Your task to perform on an android device: Search for razer deathadder on ebay.com, select the first entry, add it to the cart, then select checkout. Image 0: 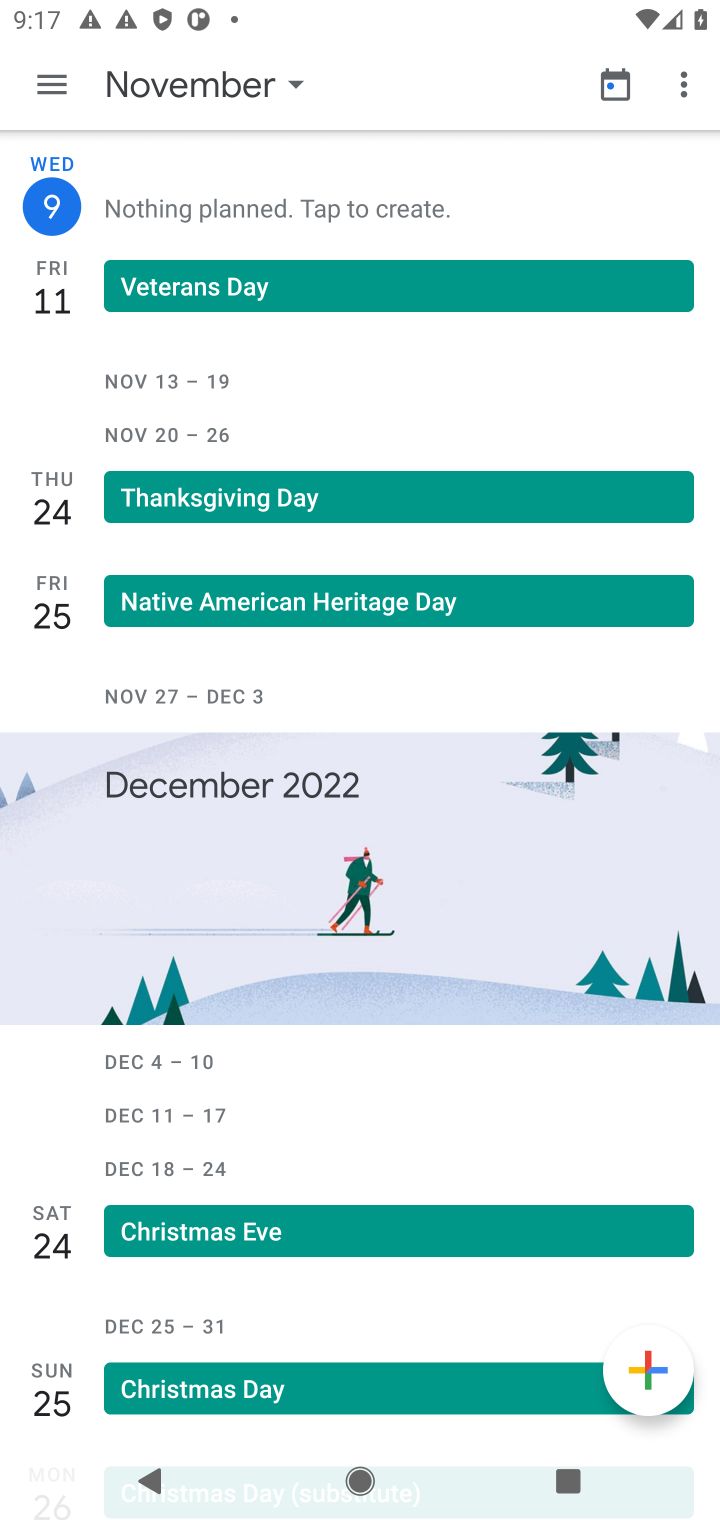
Step 0: press home button
Your task to perform on an android device: Search for razer deathadder on ebay.com, select the first entry, add it to the cart, then select checkout. Image 1: 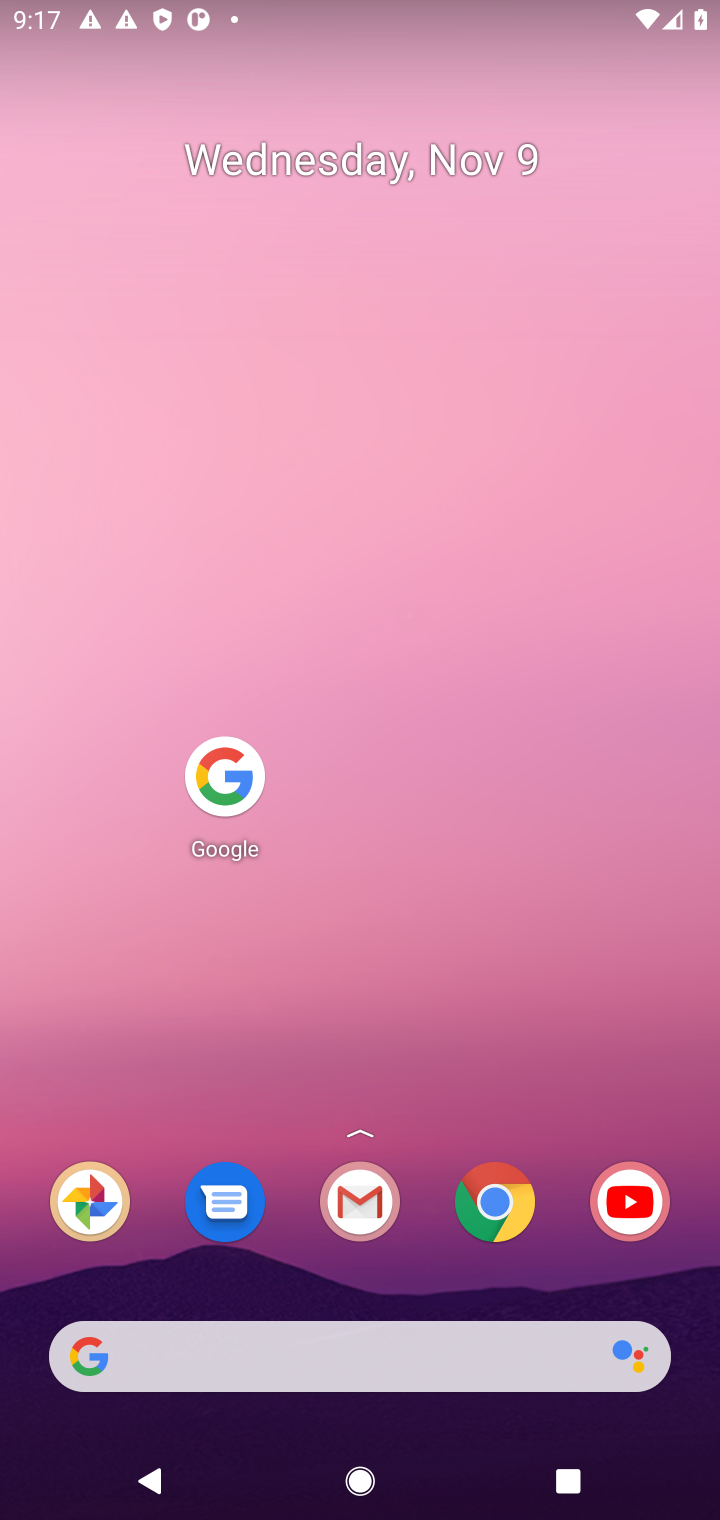
Step 1: click (228, 775)
Your task to perform on an android device: Search for razer deathadder on ebay.com, select the first entry, add it to the cart, then select checkout. Image 2: 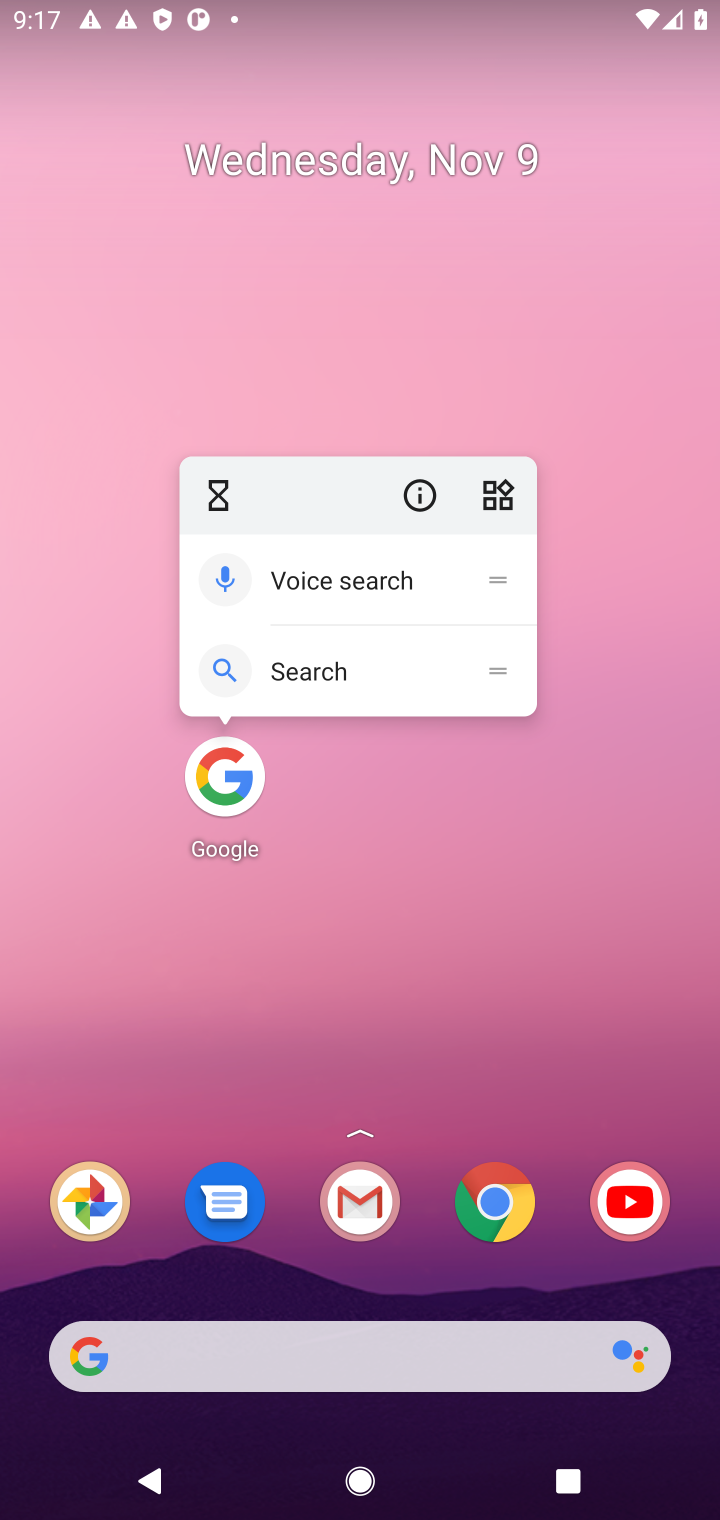
Step 2: click (228, 778)
Your task to perform on an android device: Search for razer deathadder on ebay.com, select the first entry, add it to the cart, then select checkout. Image 3: 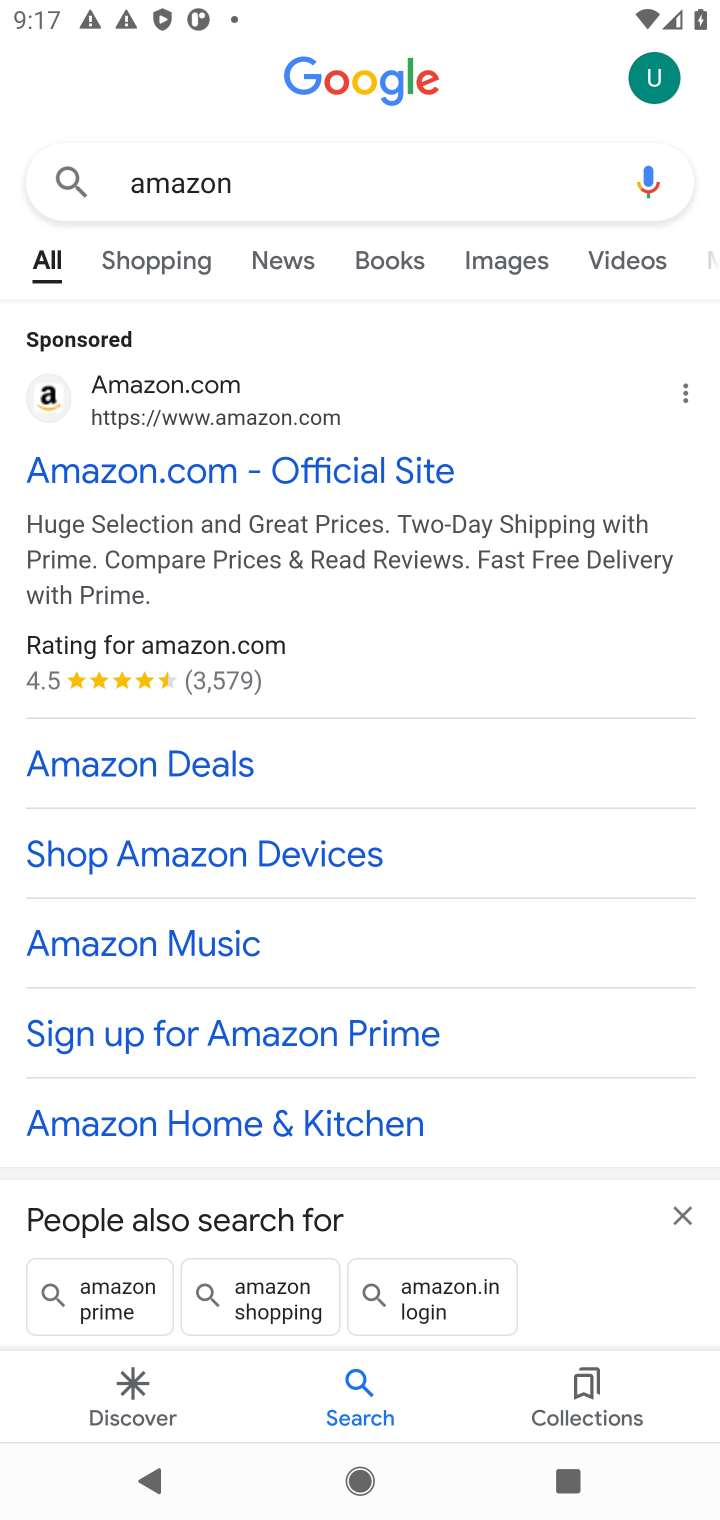
Step 3: click (250, 178)
Your task to perform on an android device: Search for razer deathadder on ebay.com, select the first entry, add it to the cart, then select checkout. Image 4: 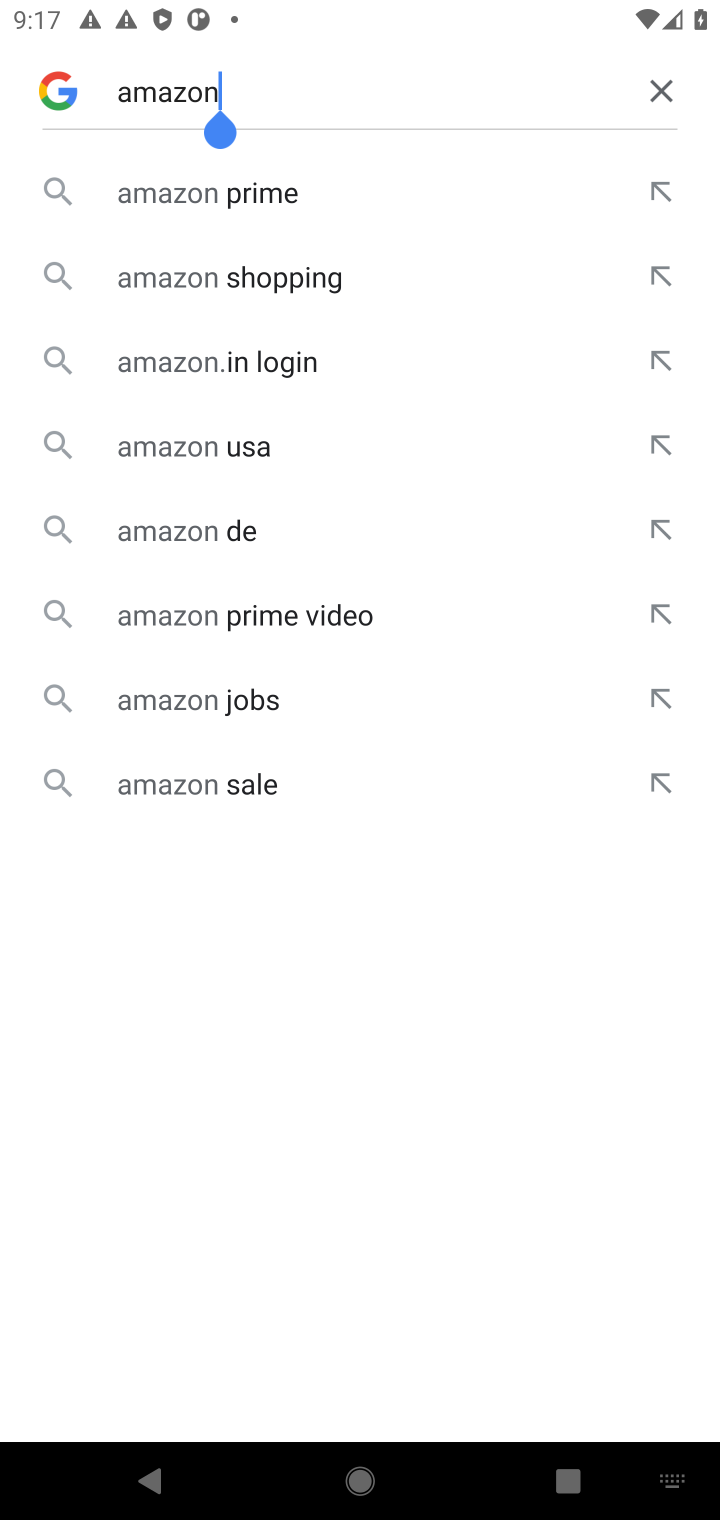
Step 4: click (656, 79)
Your task to perform on an android device: Search for razer deathadder on ebay.com, select the first entry, add it to the cart, then select checkout. Image 5: 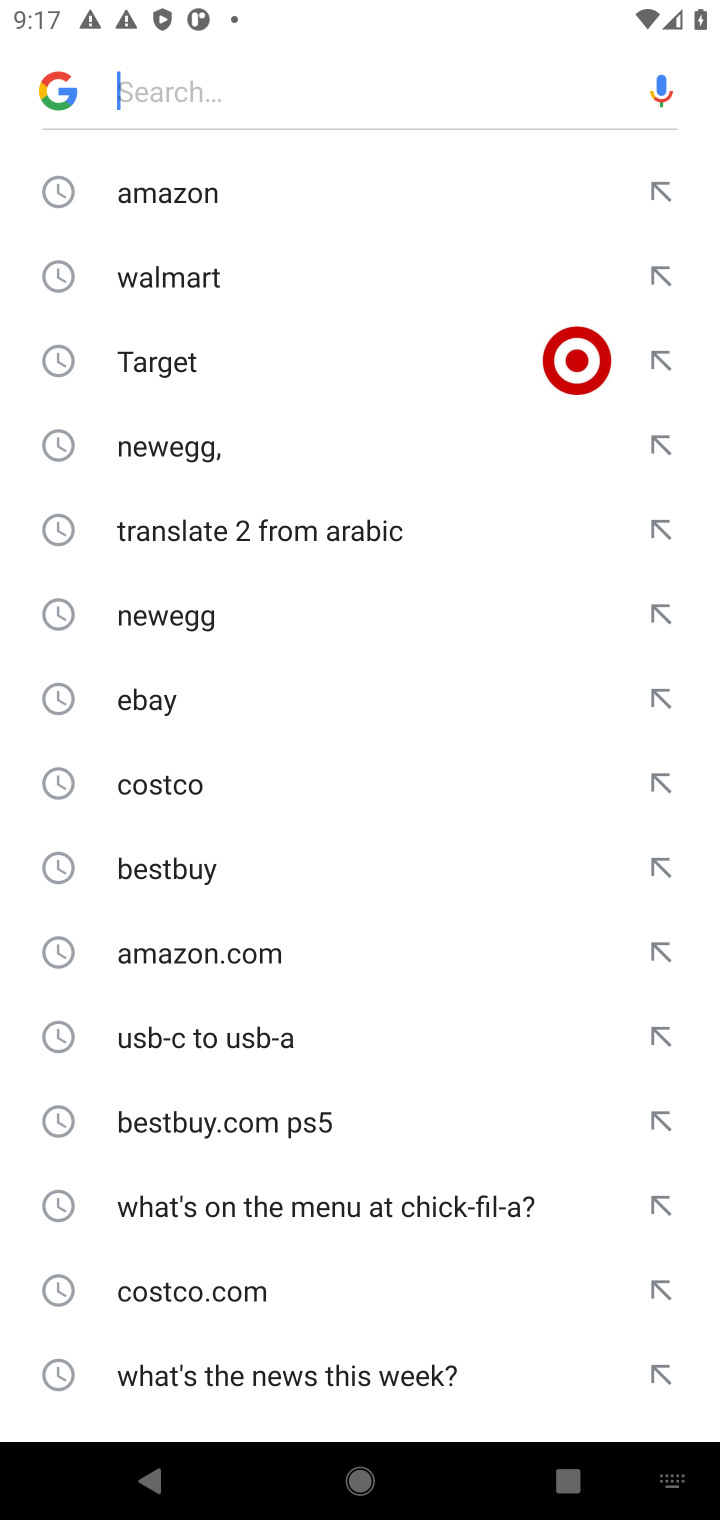
Step 5: click (128, 699)
Your task to perform on an android device: Search for razer deathadder on ebay.com, select the first entry, add it to the cart, then select checkout. Image 6: 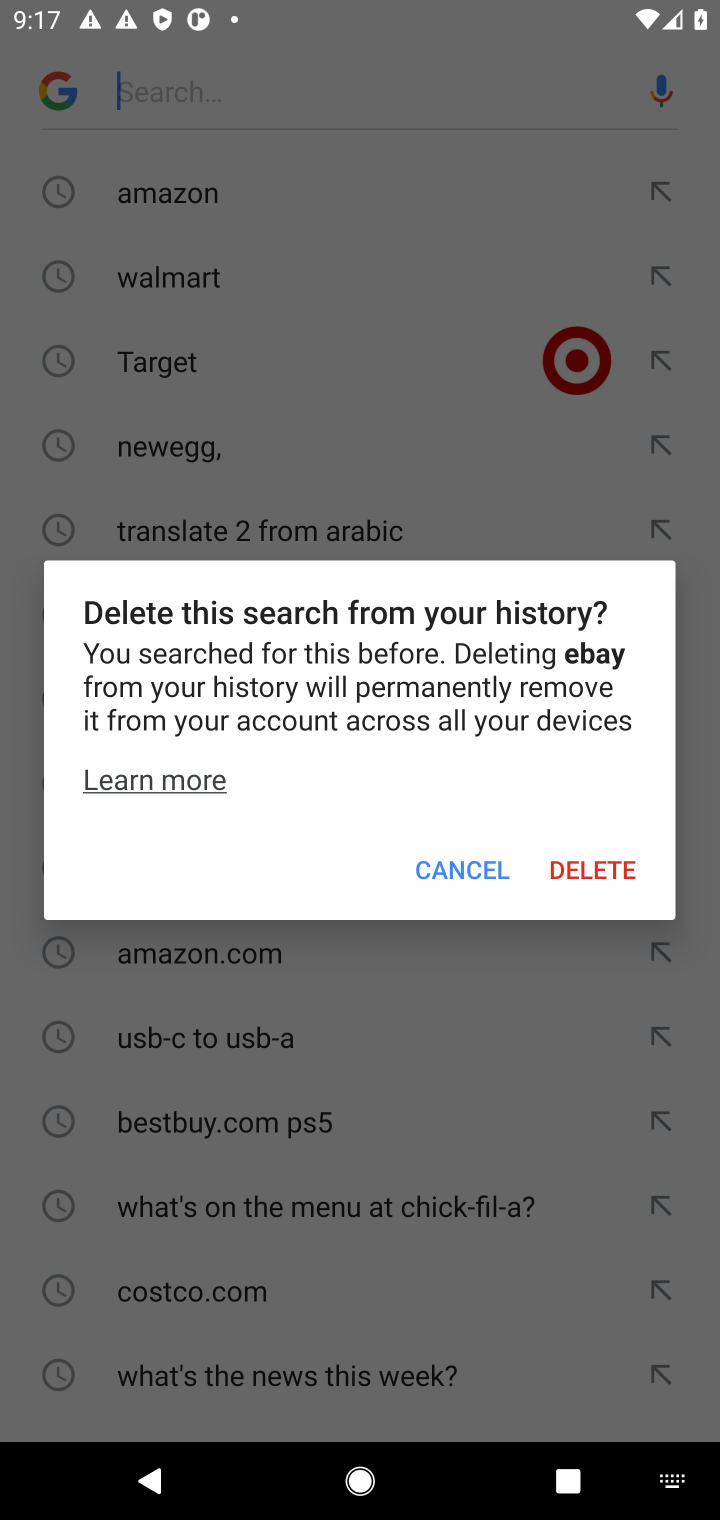
Step 6: click (438, 866)
Your task to perform on an android device: Search for razer deathadder on ebay.com, select the first entry, add it to the cart, then select checkout. Image 7: 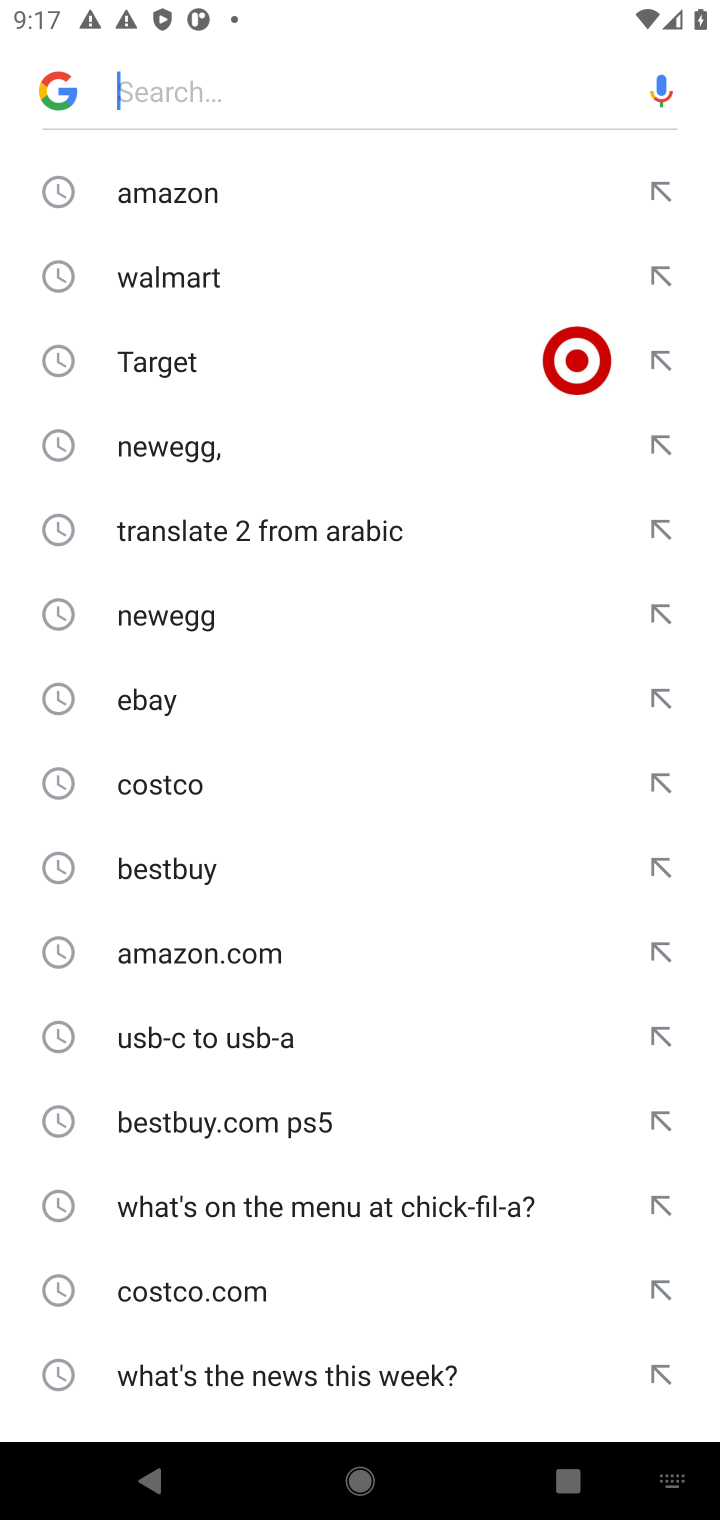
Step 7: click (148, 695)
Your task to perform on an android device: Search for razer deathadder on ebay.com, select the first entry, add it to the cart, then select checkout. Image 8: 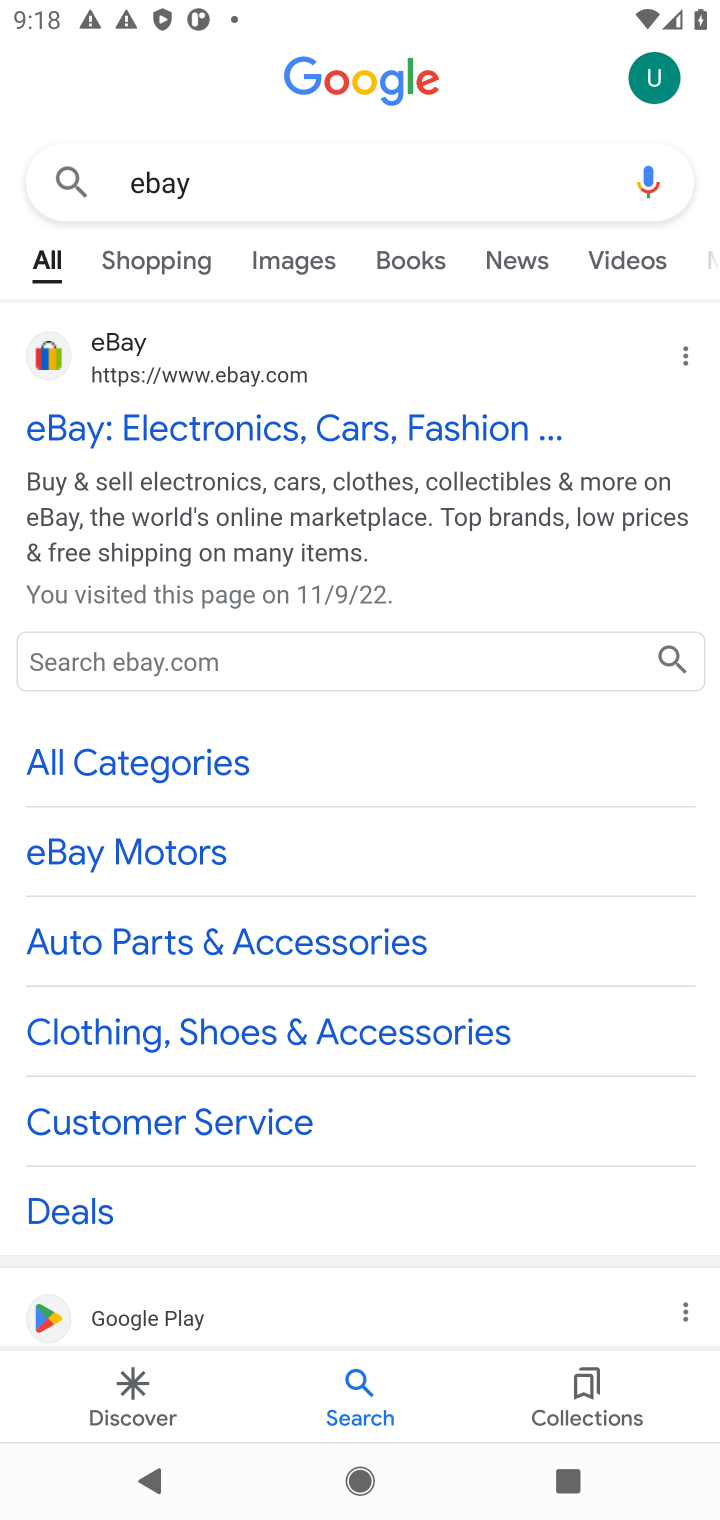
Step 8: click (299, 435)
Your task to perform on an android device: Search for razer deathadder on ebay.com, select the first entry, add it to the cart, then select checkout. Image 9: 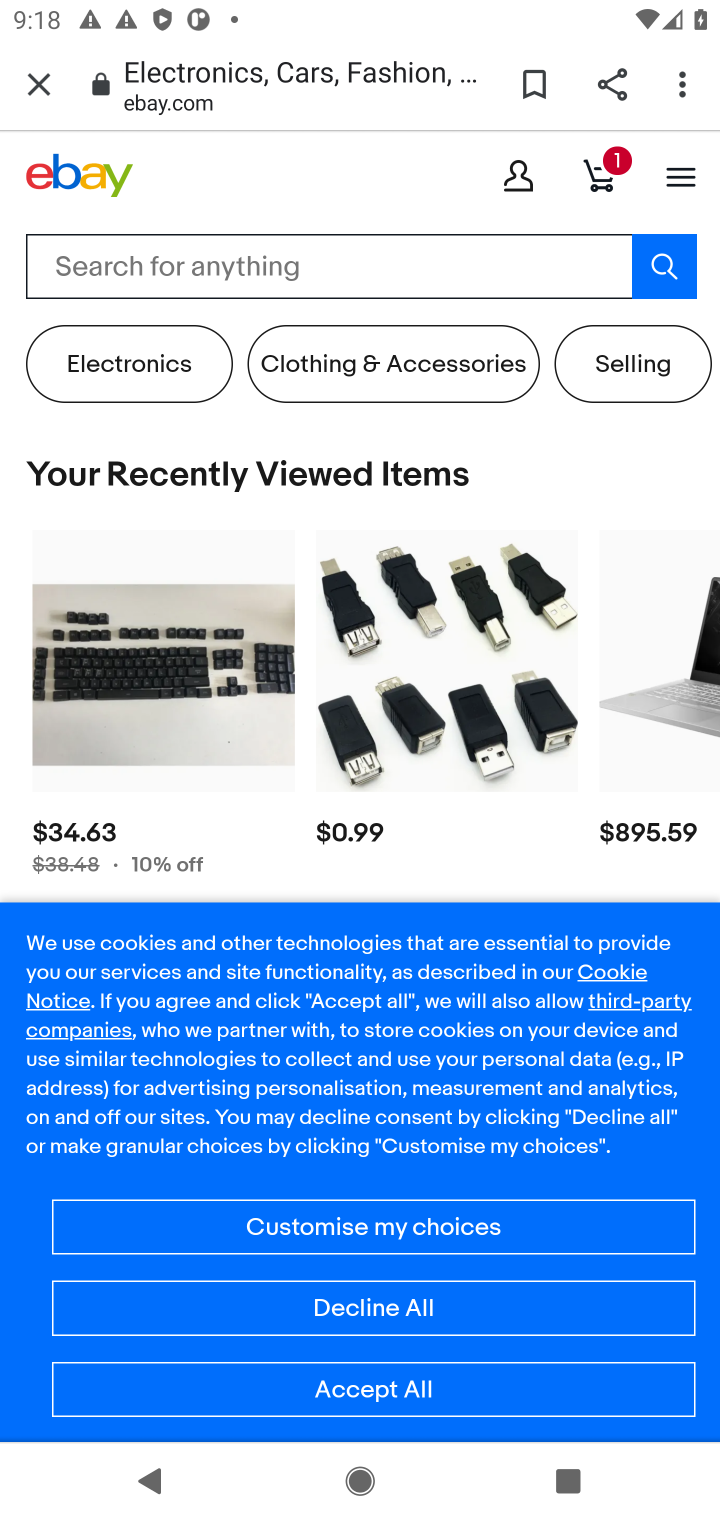
Step 9: click (200, 265)
Your task to perform on an android device: Search for razer deathadder on ebay.com, select the first entry, add it to the cart, then select checkout. Image 10: 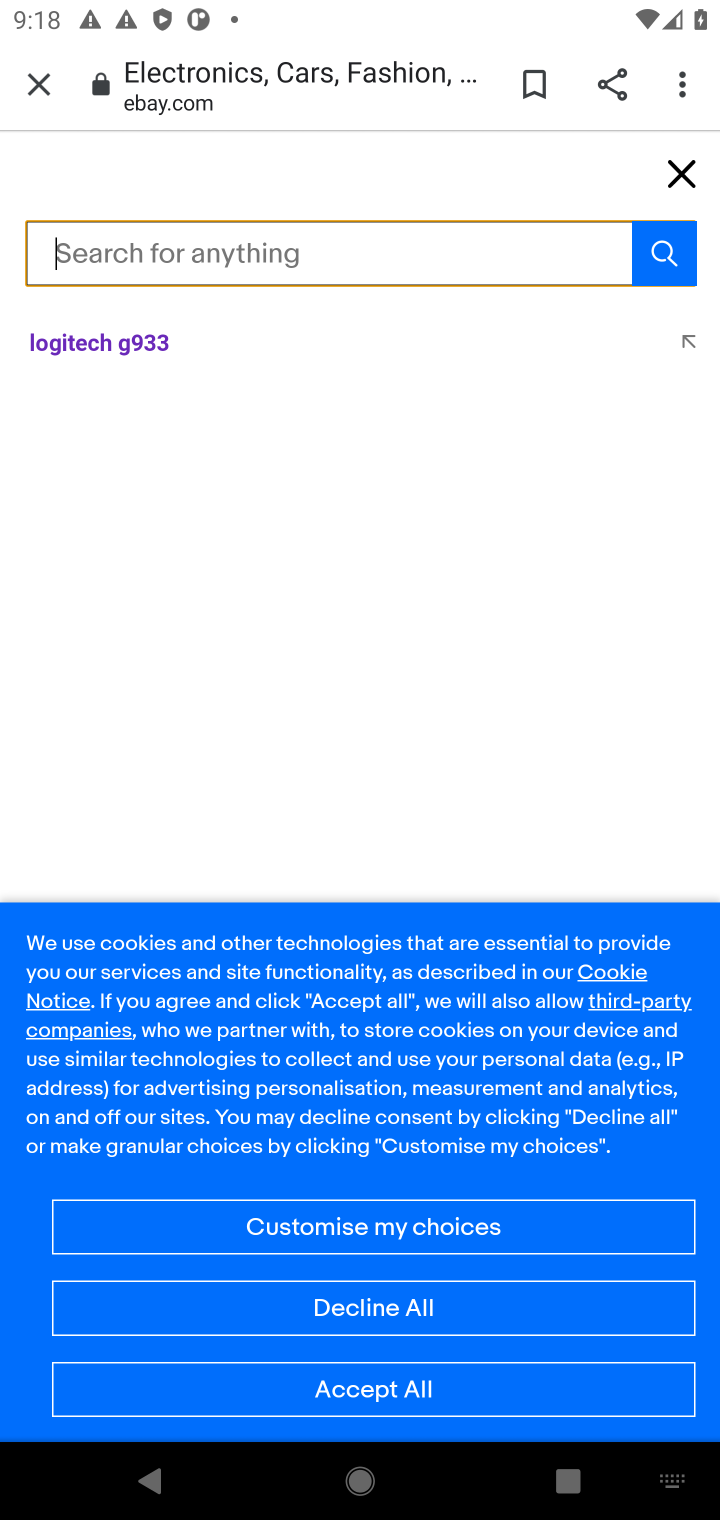
Step 10: type " razer deathadder "
Your task to perform on an android device: Search for razer deathadder on ebay.com, select the first entry, add it to the cart, then select checkout. Image 11: 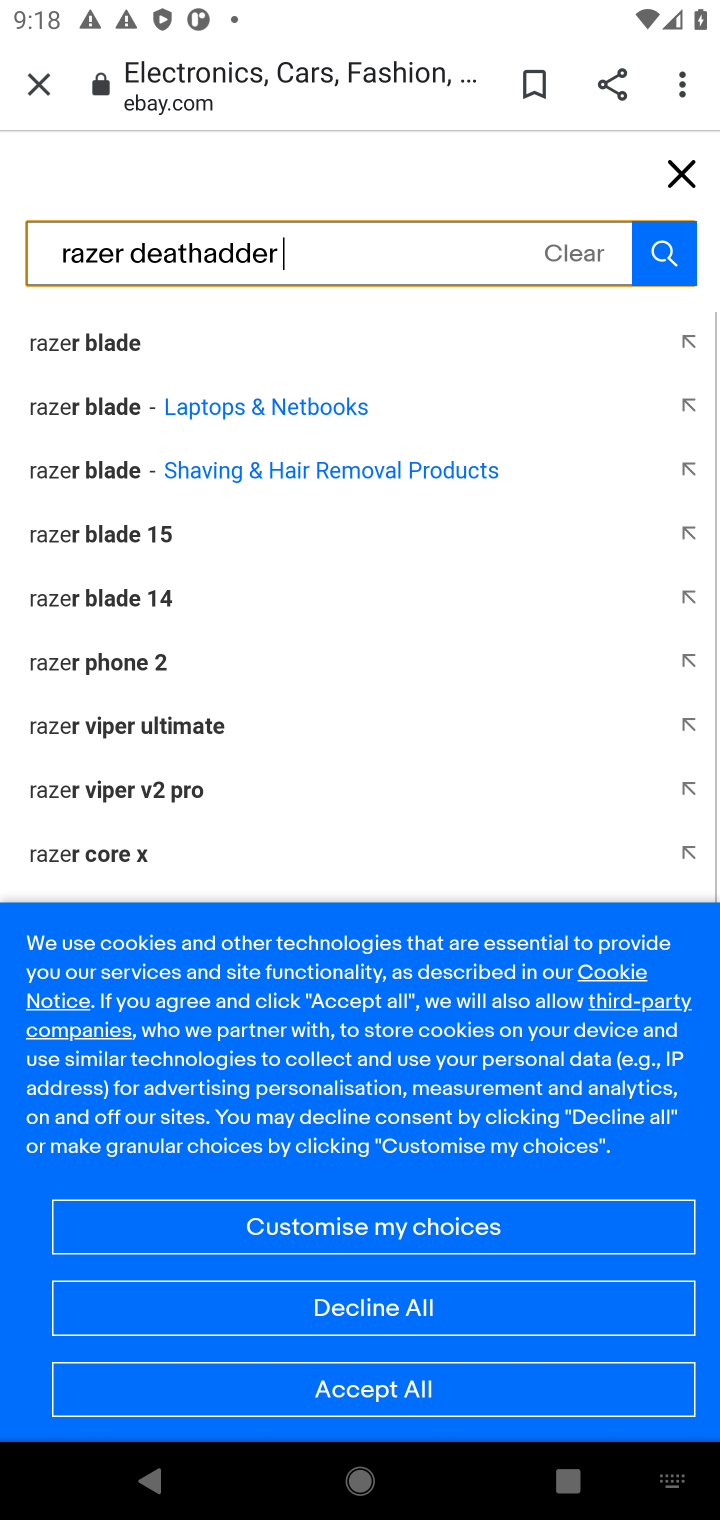
Step 11: press enter
Your task to perform on an android device: Search for razer deathadder on ebay.com, select the first entry, add it to the cart, then select checkout. Image 12: 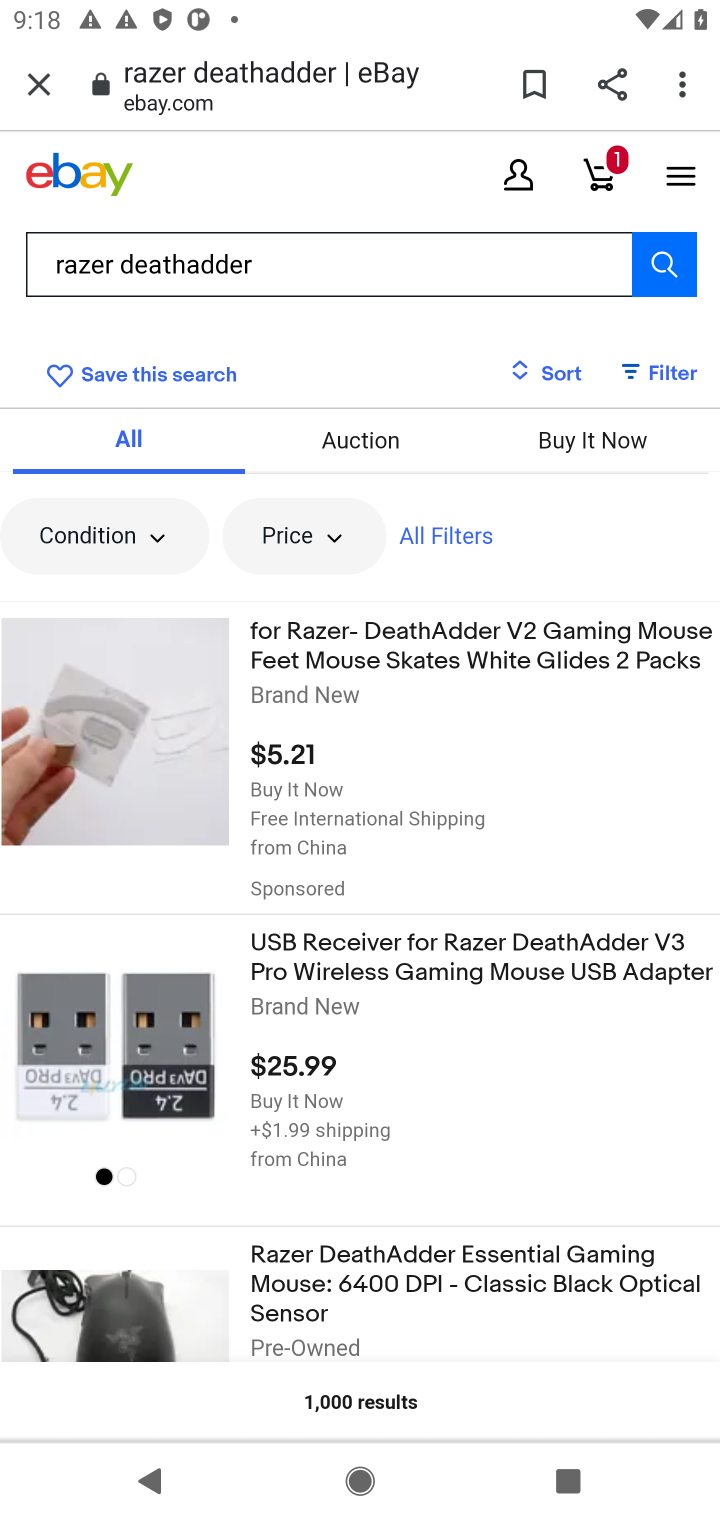
Step 12: click (420, 711)
Your task to perform on an android device: Search for razer deathadder on ebay.com, select the first entry, add it to the cart, then select checkout. Image 13: 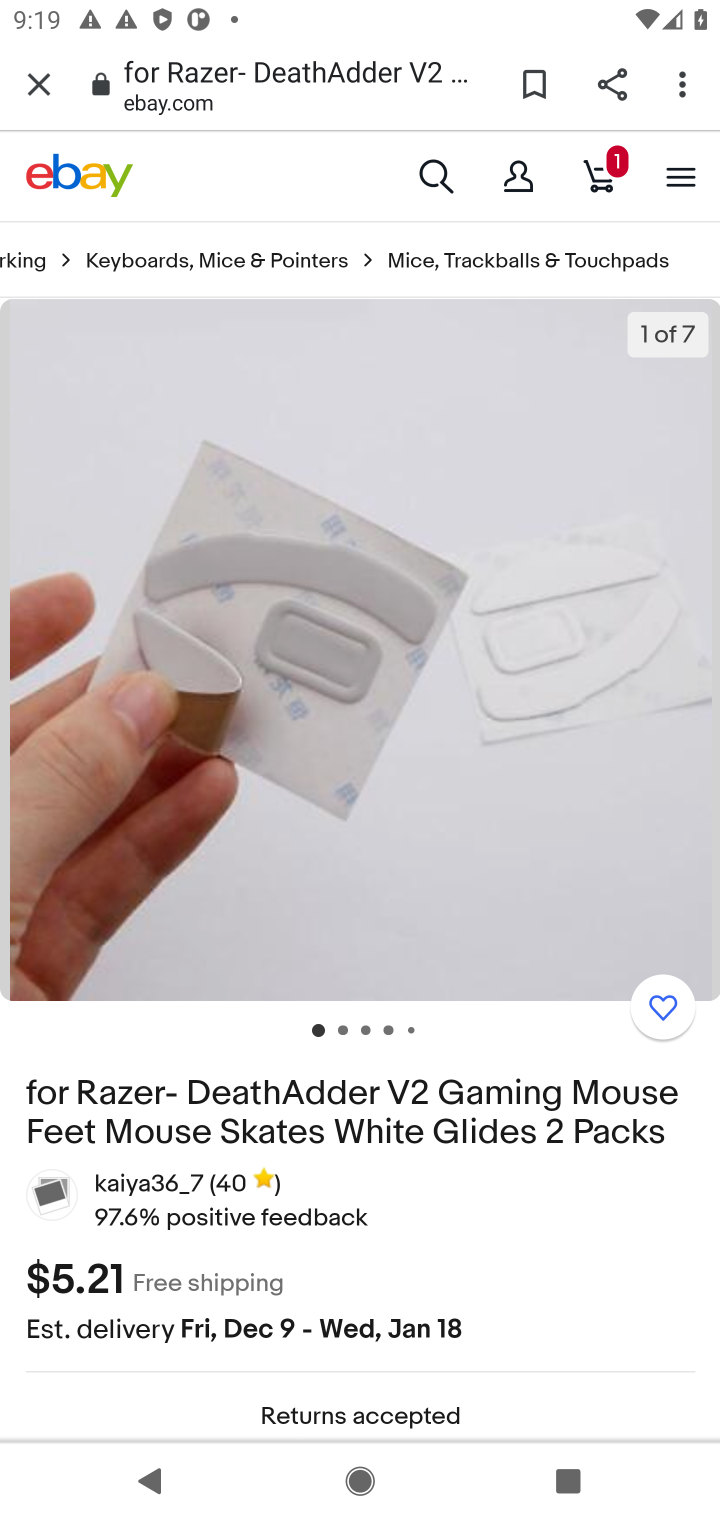
Step 13: drag from (212, 1289) to (479, 687)
Your task to perform on an android device: Search for razer deathadder on ebay.com, select the first entry, add it to the cart, then select checkout. Image 14: 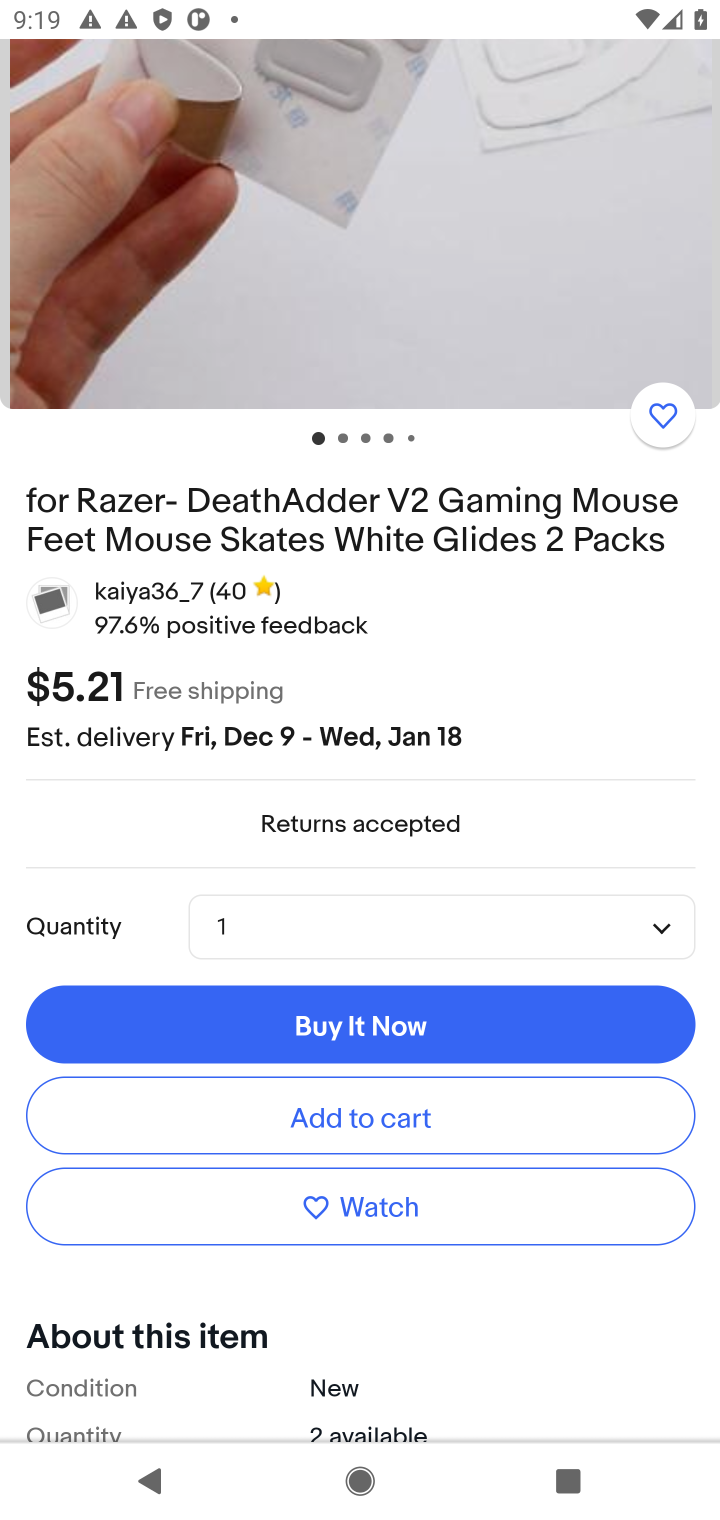
Step 14: click (363, 1120)
Your task to perform on an android device: Search for razer deathadder on ebay.com, select the first entry, add it to the cart, then select checkout. Image 15: 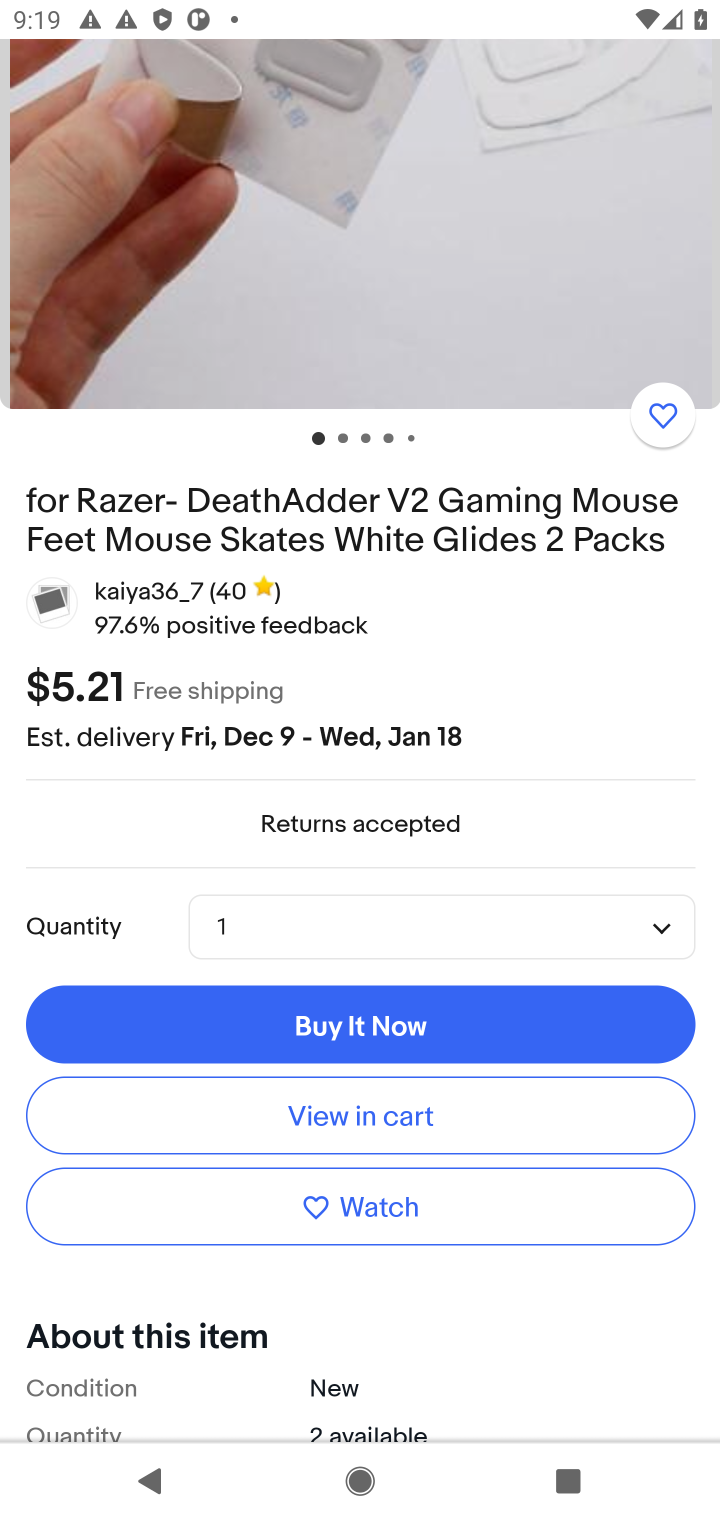
Step 15: click (352, 1120)
Your task to perform on an android device: Search for razer deathadder on ebay.com, select the first entry, add it to the cart, then select checkout. Image 16: 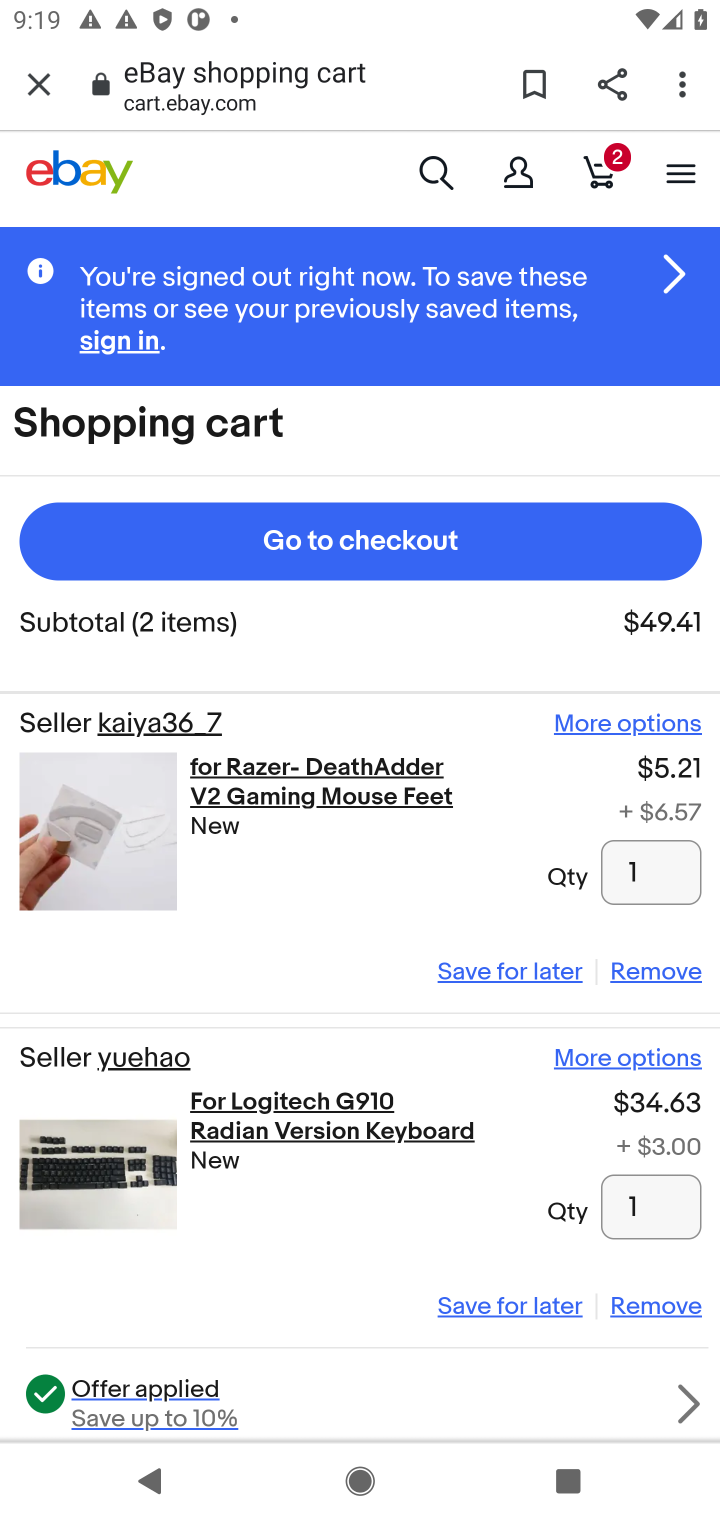
Step 16: drag from (326, 918) to (459, 570)
Your task to perform on an android device: Search for razer deathadder on ebay.com, select the first entry, add it to the cart, then select checkout. Image 17: 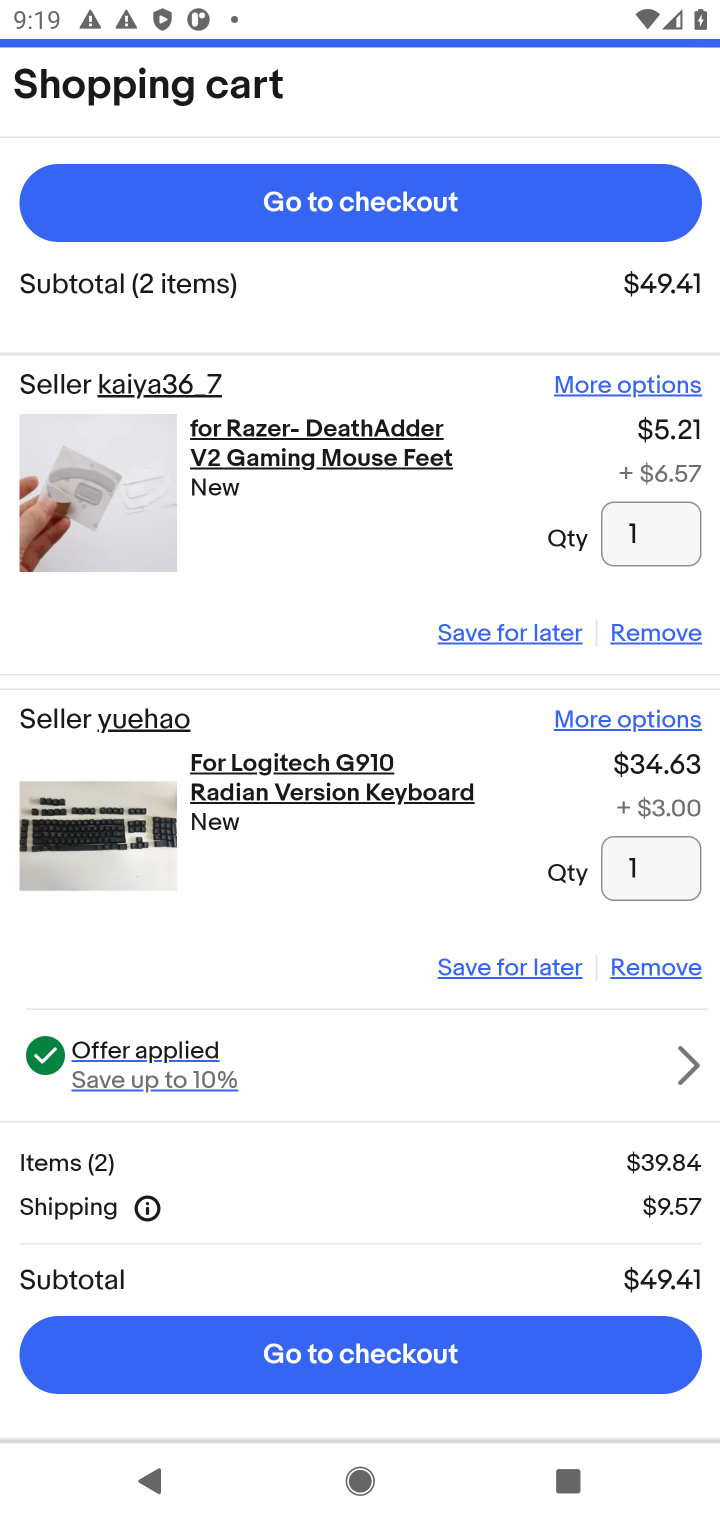
Step 17: click (638, 967)
Your task to perform on an android device: Search for razer deathadder on ebay.com, select the first entry, add it to the cart, then select checkout. Image 18: 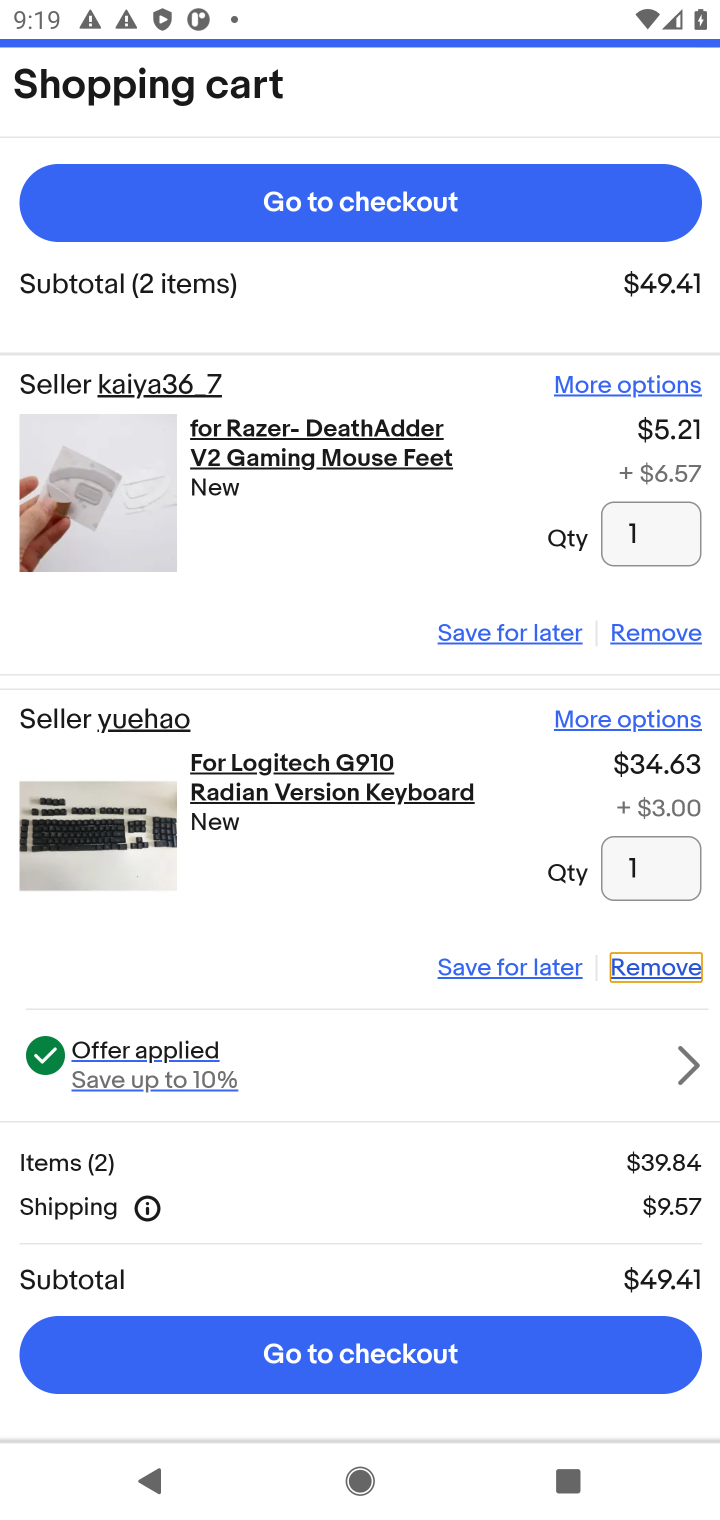
Step 18: click (653, 967)
Your task to perform on an android device: Search for razer deathadder on ebay.com, select the first entry, add it to the cart, then select checkout. Image 19: 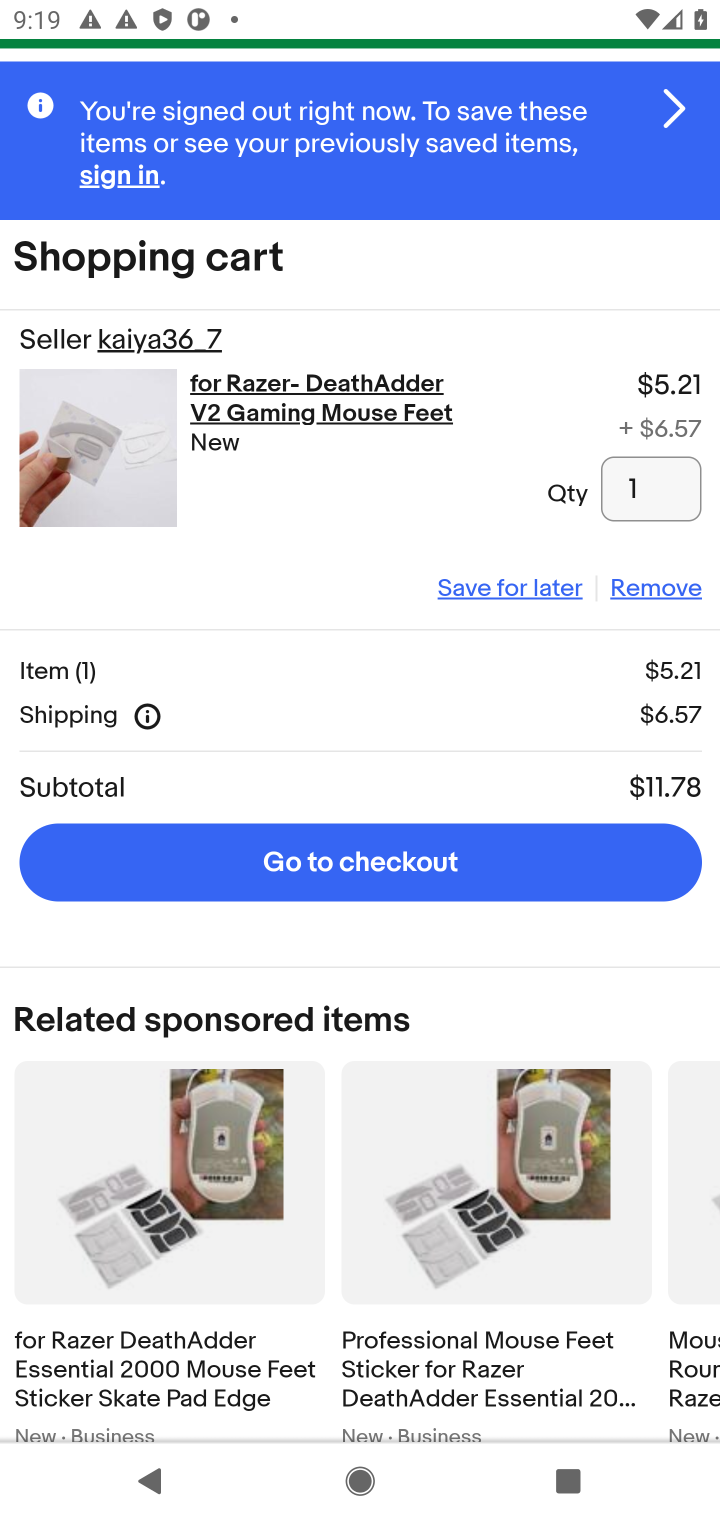
Step 19: click (389, 856)
Your task to perform on an android device: Search for razer deathadder on ebay.com, select the first entry, add it to the cart, then select checkout. Image 20: 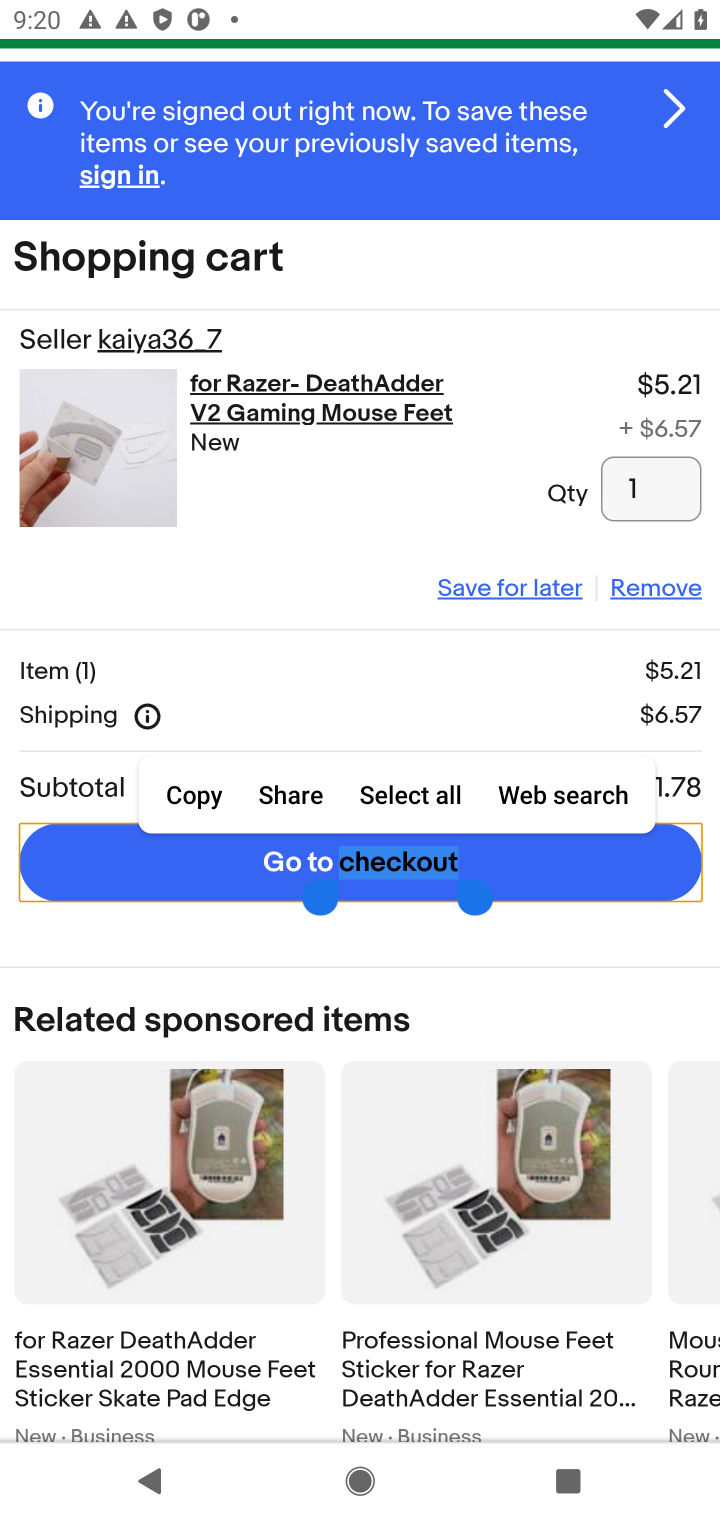
Step 20: click (302, 859)
Your task to perform on an android device: Search for razer deathadder on ebay.com, select the first entry, add it to the cart, then select checkout. Image 21: 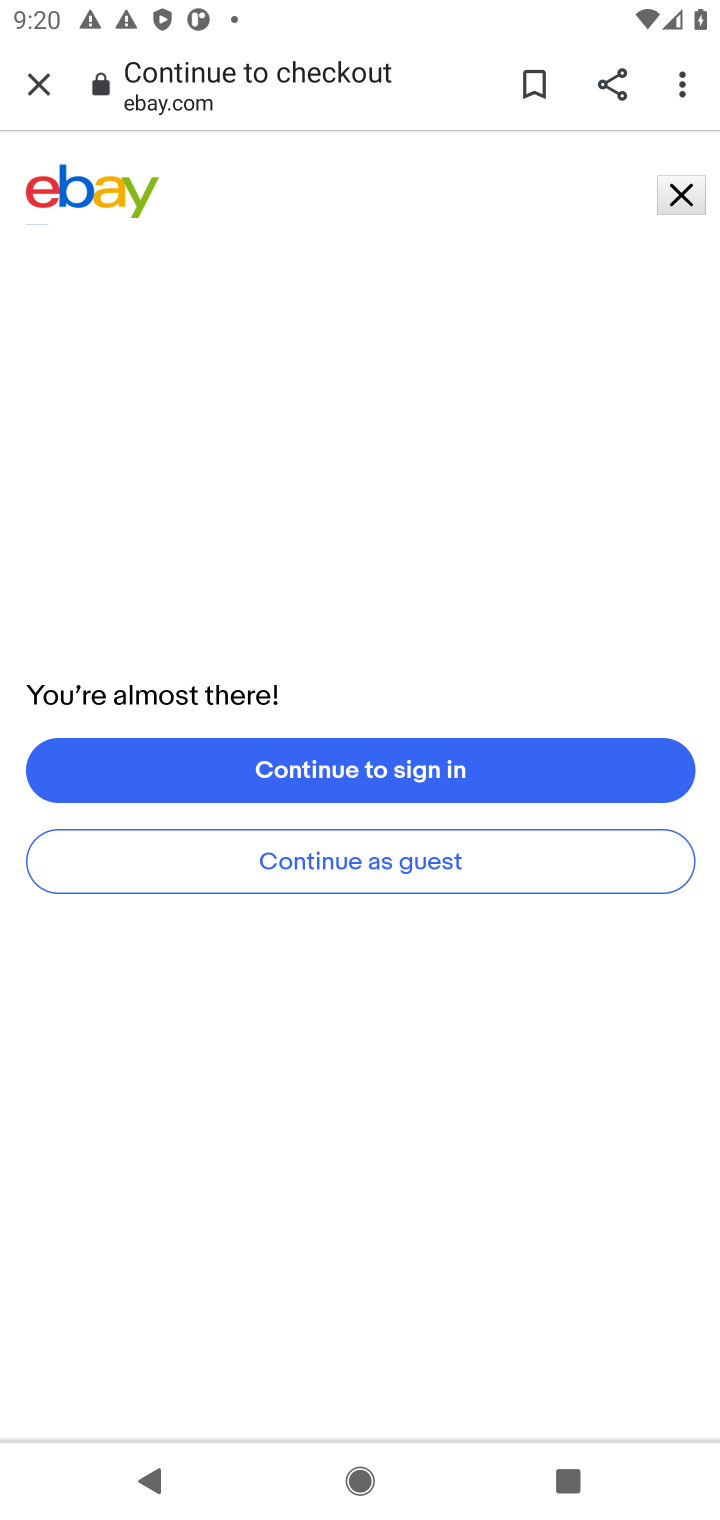
Step 21: task complete